Your task to perform on an android device: turn on javascript in the chrome app Image 0: 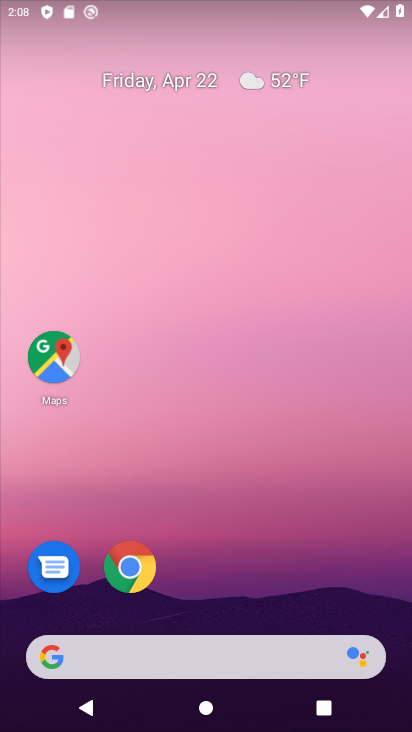
Step 0: click (124, 560)
Your task to perform on an android device: turn on javascript in the chrome app Image 1: 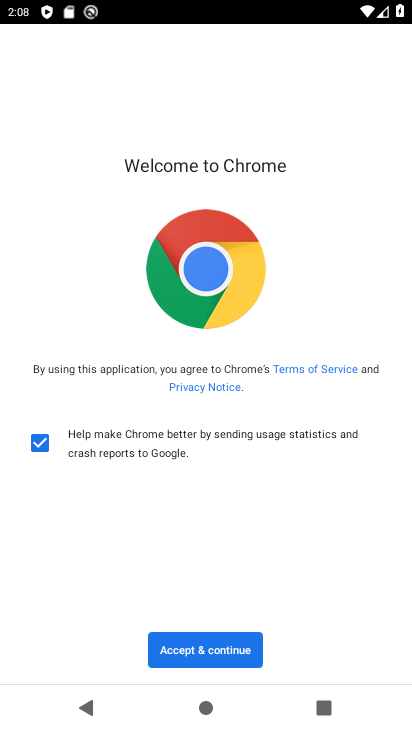
Step 1: click (210, 638)
Your task to perform on an android device: turn on javascript in the chrome app Image 2: 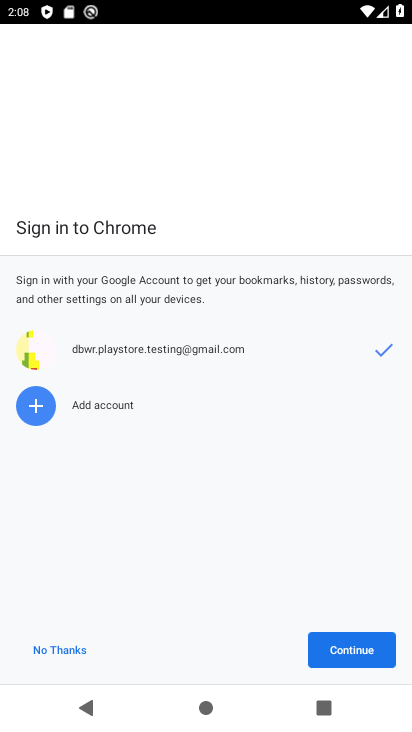
Step 2: click (331, 647)
Your task to perform on an android device: turn on javascript in the chrome app Image 3: 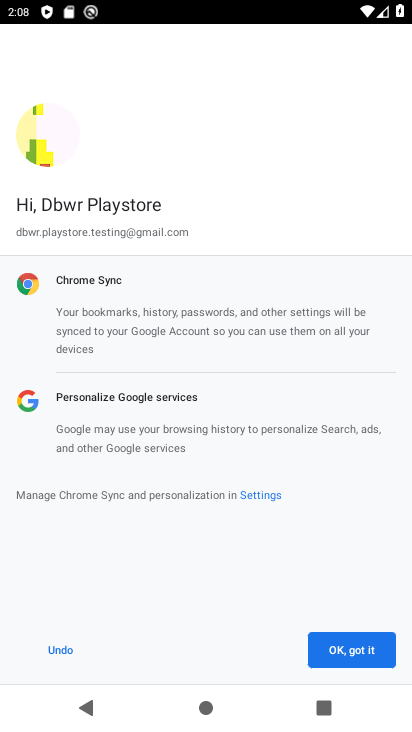
Step 3: click (351, 646)
Your task to perform on an android device: turn on javascript in the chrome app Image 4: 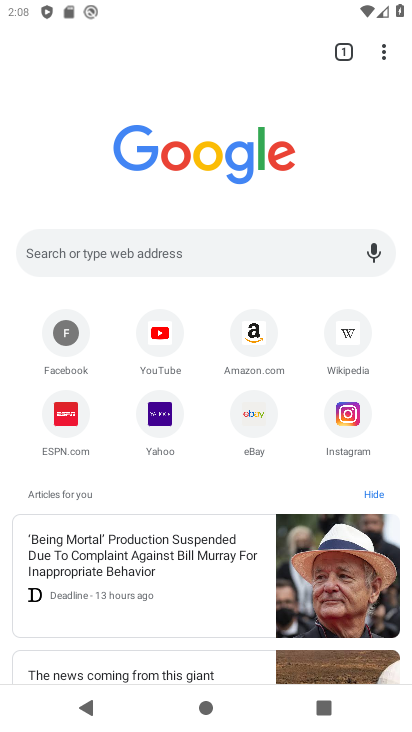
Step 4: click (379, 50)
Your task to perform on an android device: turn on javascript in the chrome app Image 5: 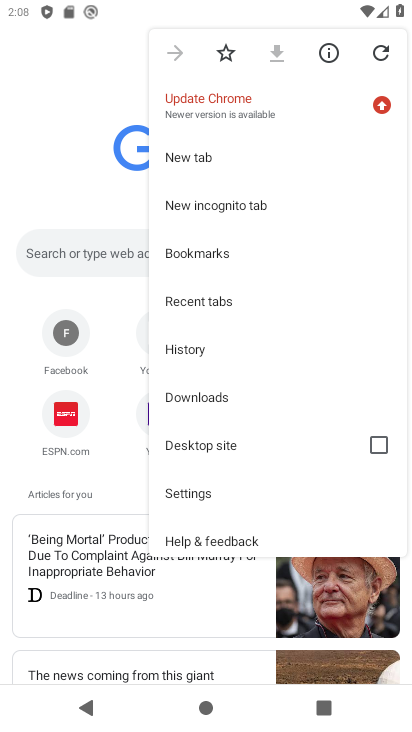
Step 5: click (184, 482)
Your task to perform on an android device: turn on javascript in the chrome app Image 6: 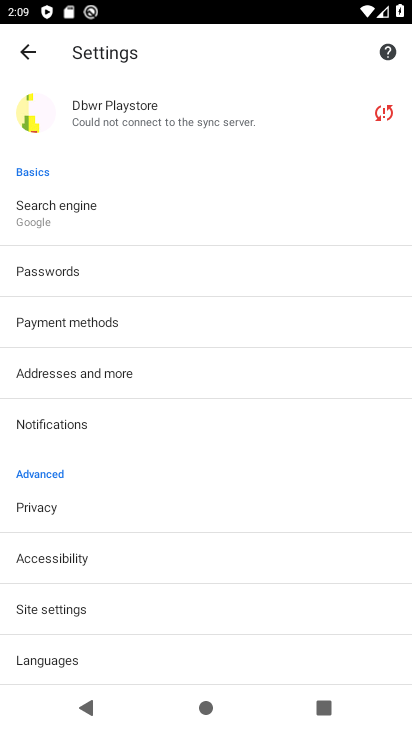
Step 6: click (111, 606)
Your task to perform on an android device: turn on javascript in the chrome app Image 7: 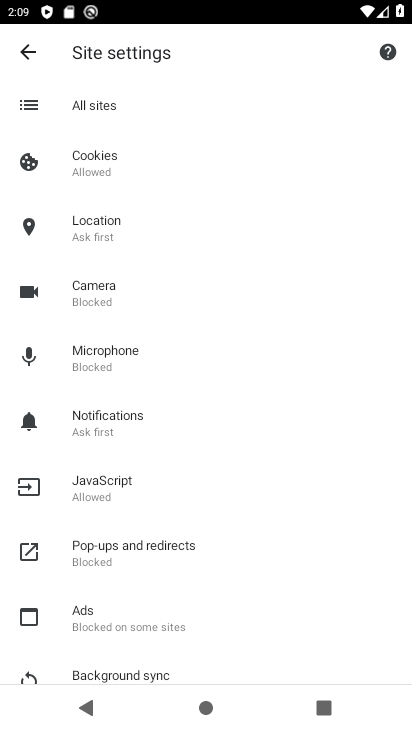
Step 7: click (126, 490)
Your task to perform on an android device: turn on javascript in the chrome app Image 8: 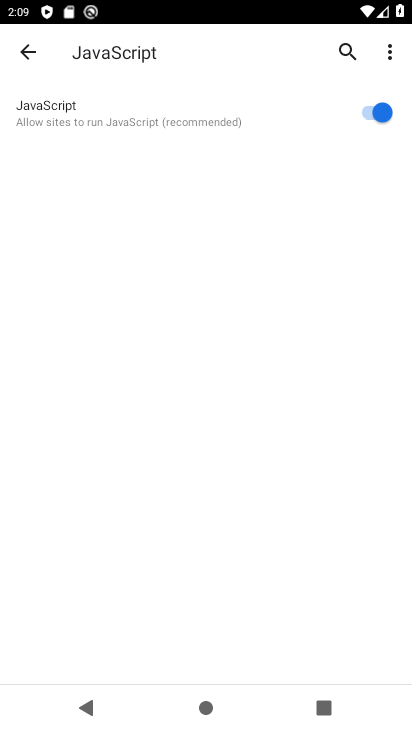
Step 8: task complete